Your task to perform on an android device: toggle data saver in the chrome app Image 0: 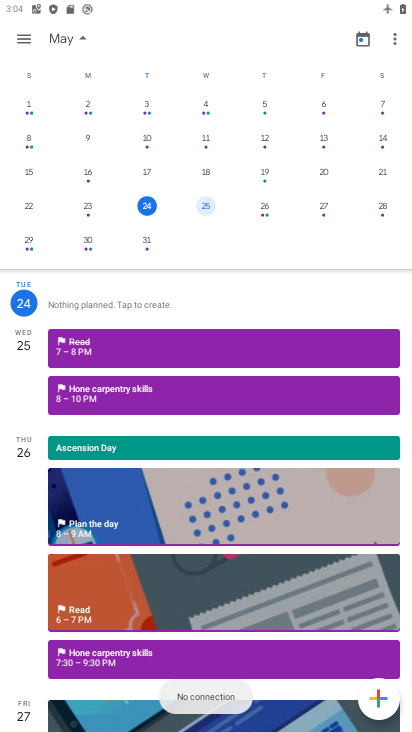
Step 0: press home button
Your task to perform on an android device: toggle data saver in the chrome app Image 1: 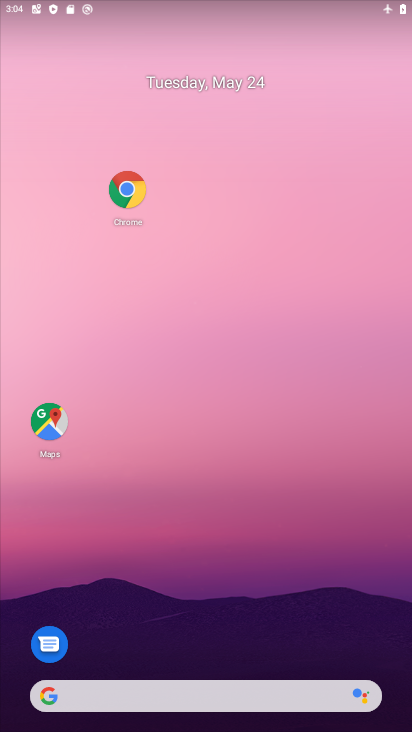
Step 1: click (134, 193)
Your task to perform on an android device: toggle data saver in the chrome app Image 2: 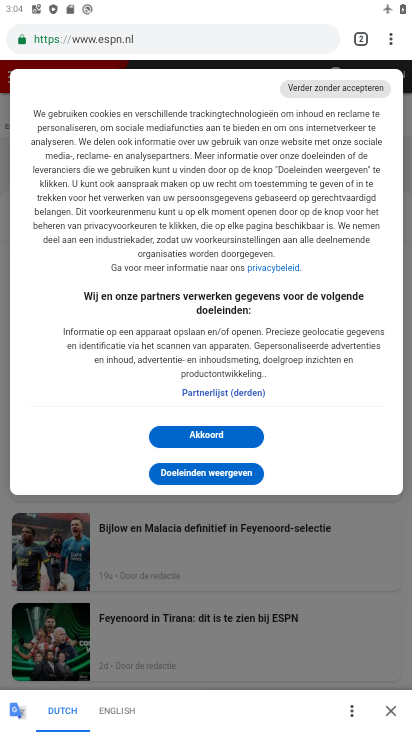
Step 2: click (381, 36)
Your task to perform on an android device: toggle data saver in the chrome app Image 3: 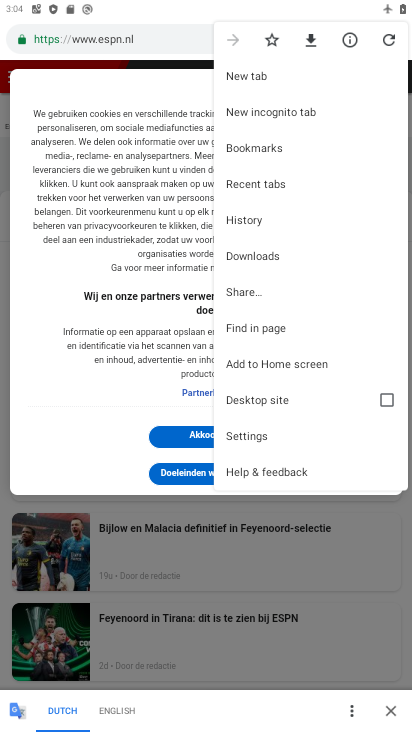
Step 3: click (265, 437)
Your task to perform on an android device: toggle data saver in the chrome app Image 4: 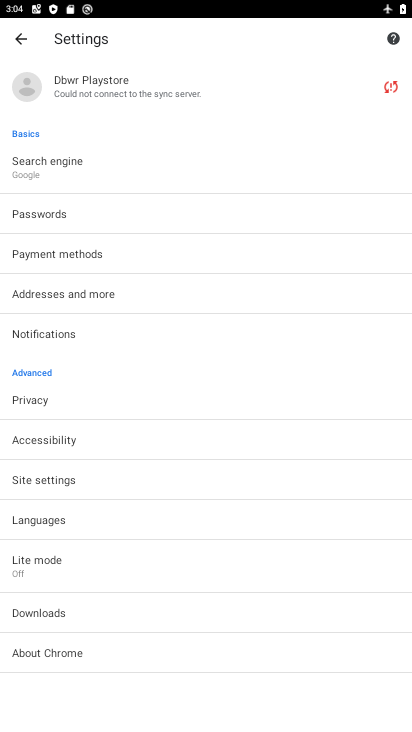
Step 4: drag from (206, 572) to (201, 212)
Your task to perform on an android device: toggle data saver in the chrome app Image 5: 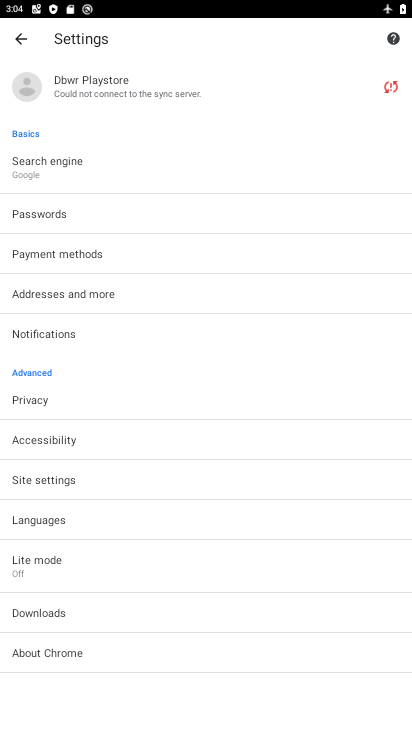
Step 5: click (97, 563)
Your task to perform on an android device: toggle data saver in the chrome app Image 6: 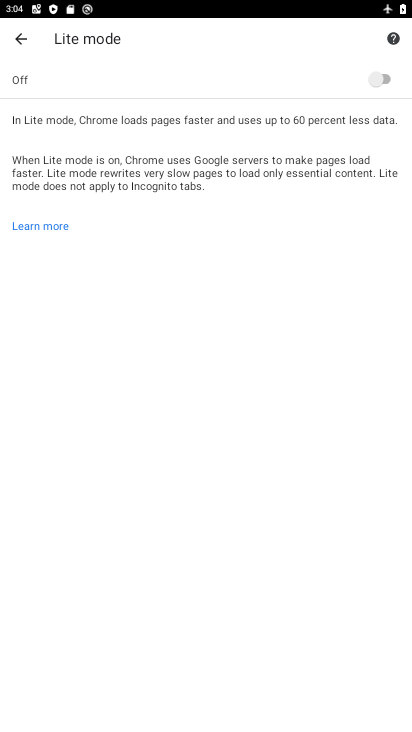
Step 6: click (383, 84)
Your task to perform on an android device: toggle data saver in the chrome app Image 7: 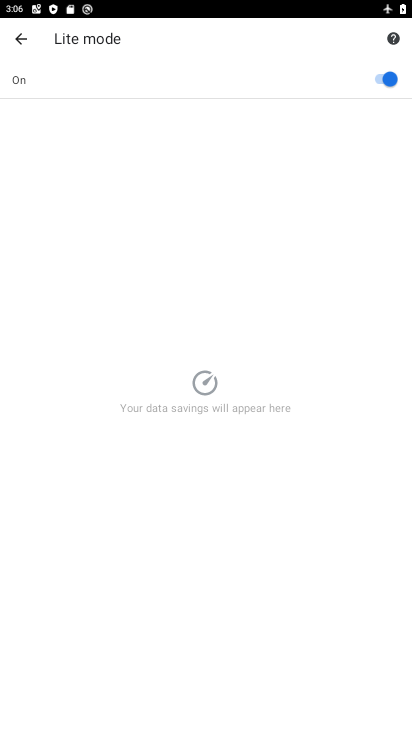
Step 7: task complete